Your task to perform on an android device: Play the last video I watched on Youtube Image 0: 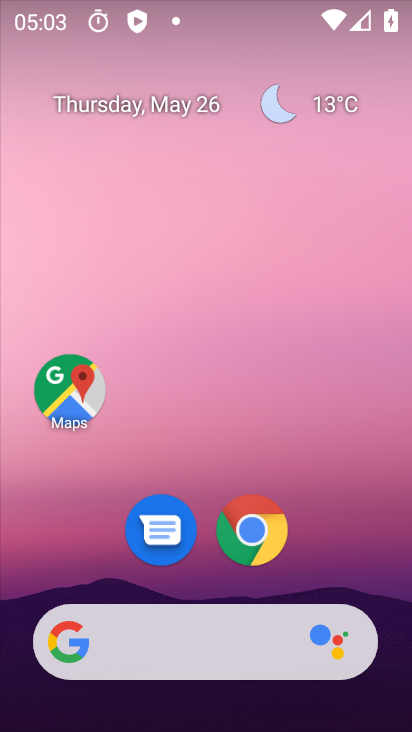
Step 0: drag from (149, 645) to (231, 2)
Your task to perform on an android device: Play the last video I watched on Youtube Image 1: 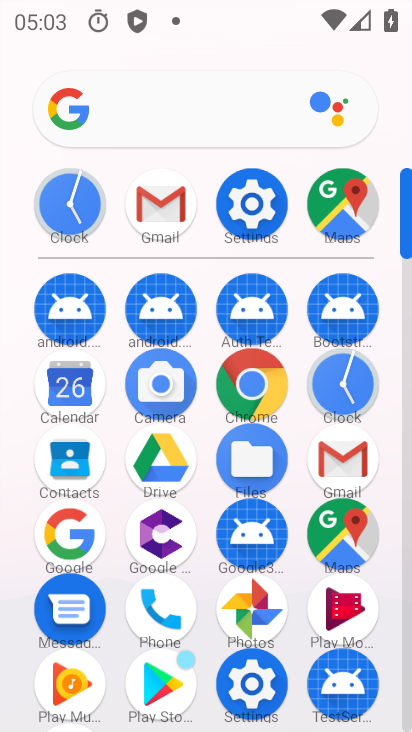
Step 1: drag from (295, 657) to (279, 346)
Your task to perform on an android device: Play the last video I watched on Youtube Image 2: 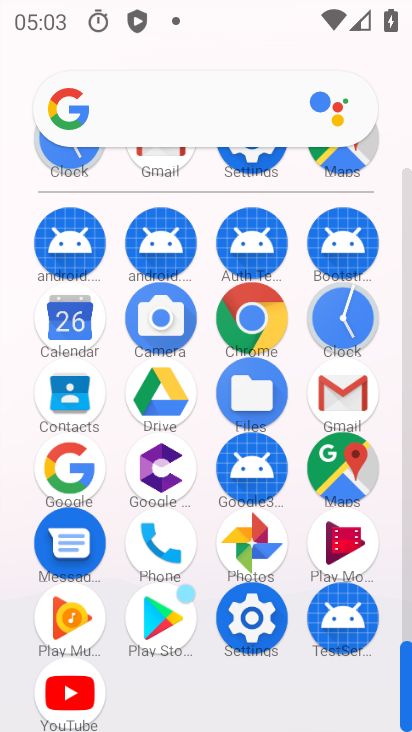
Step 2: click (61, 682)
Your task to perform on an android device: Play the last video I watched on Youtube Image 3: 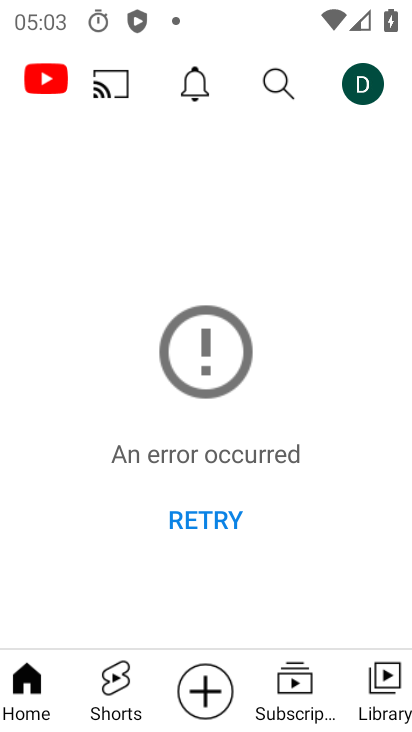
Step 3: click (391, 682)
Your task to perform on an android device: Play the last video I watched on Youtube Image 4: 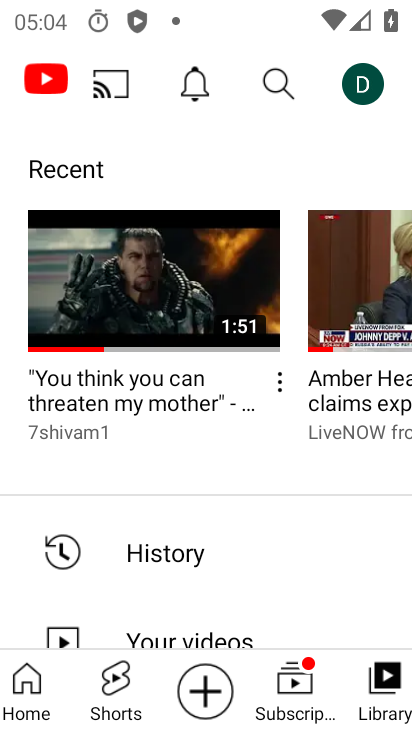
Step 4: click (143, 305)
Your task to perform on an android device: Play the last video I watched on Youtube Image 5: 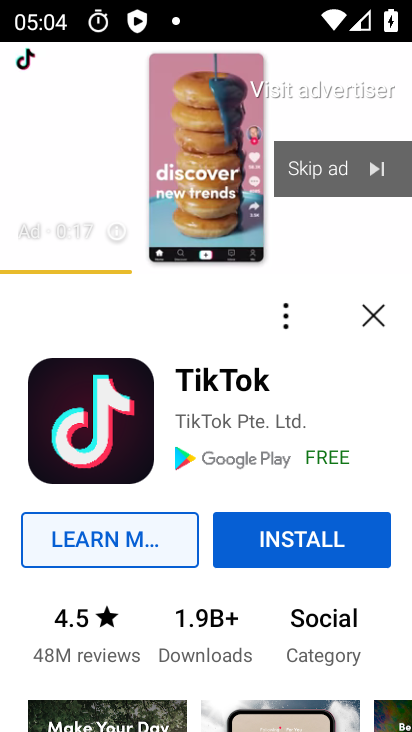
Step 5: click (372, 310)
Your task to perform on an android device: Play the last video I watched on Youtube Image 6: 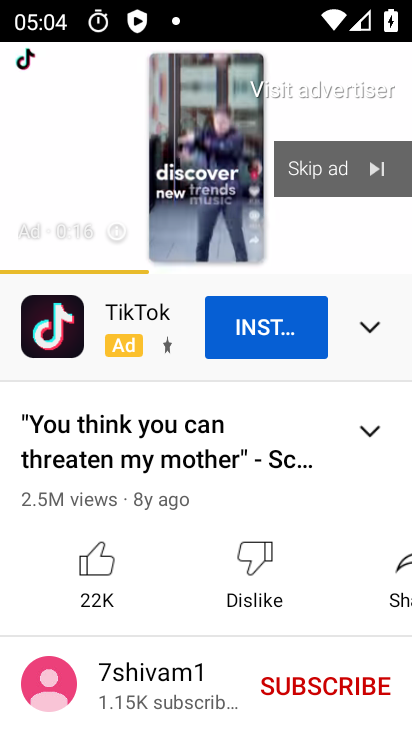
Step 6: click (368, 182)
Your task to perform on an android device: Play the last video I watched on Youtube Image 7: 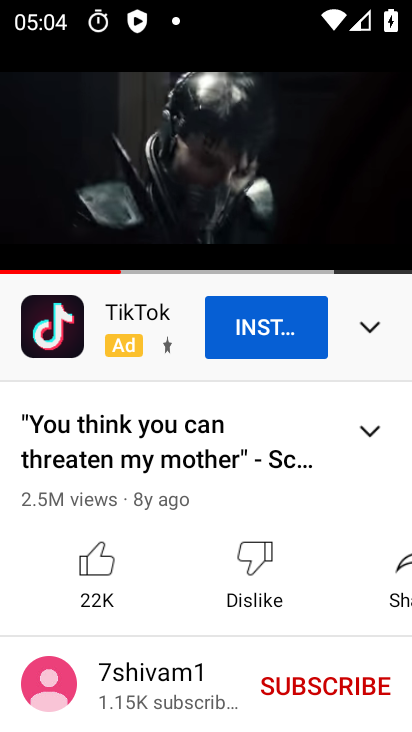
Step 7: click (206, 192)
Your task to perform on an android device: Play the last video I watched on Youtube Image 8: 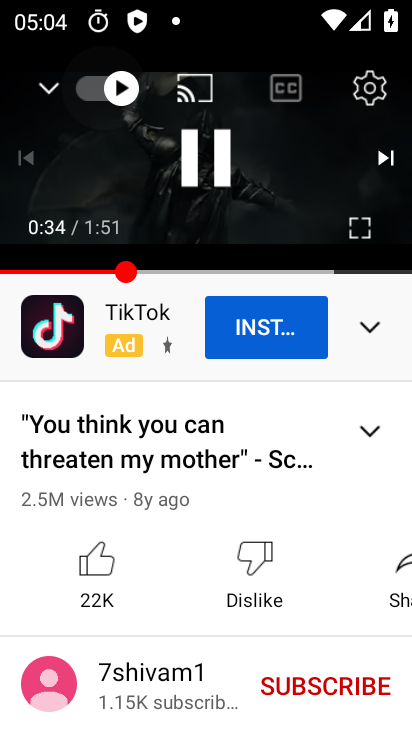
Step 8: task complete